Your task to perform on an android device: turn off javascript in the chrome app Image 0: 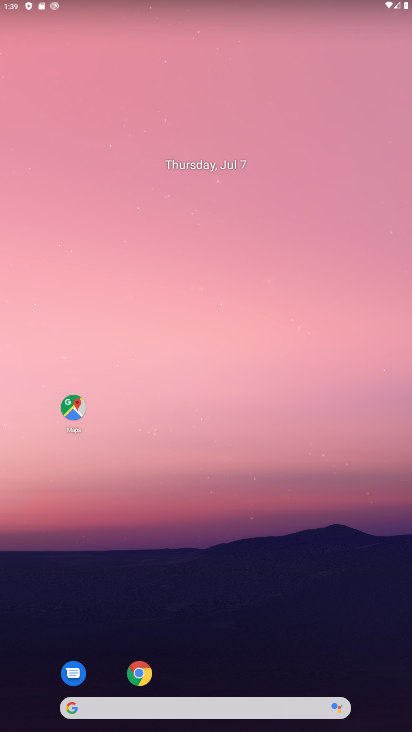
Step 0: drag from (236, 639) to (255, 180)
Your task to perform on an android device: turn off javascript in the chrome app Image 1: 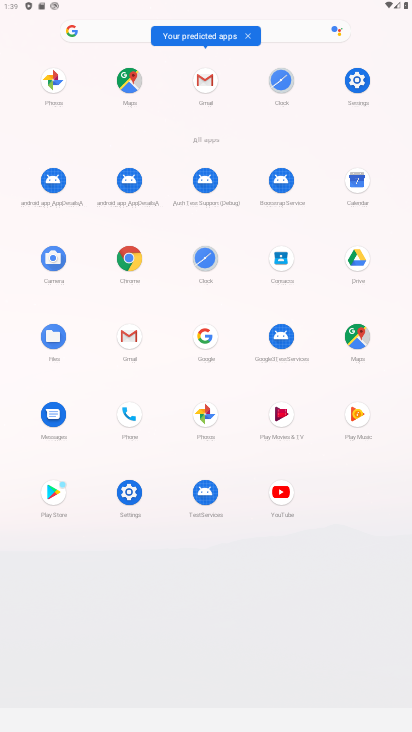
Step 1: click (140, 256)
Your task to perform on an android device: turn off javascript in the chrome app Image 2: 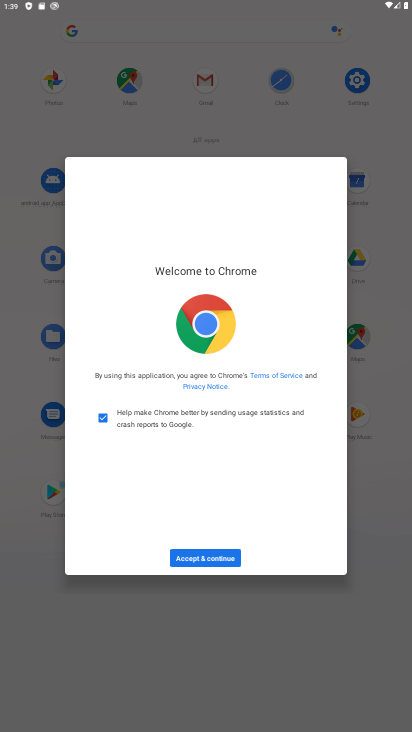
Step 2: click (222, 551)
Your task to perform on an android device: turn off javascript in the chrome app Image 3: 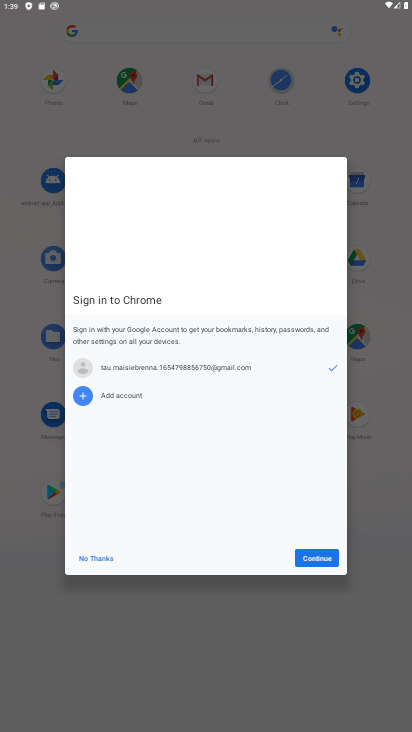
Step 3: click (308, 561)
Your task to perform on an android device: turn off javascript in the chrome app Image 4: 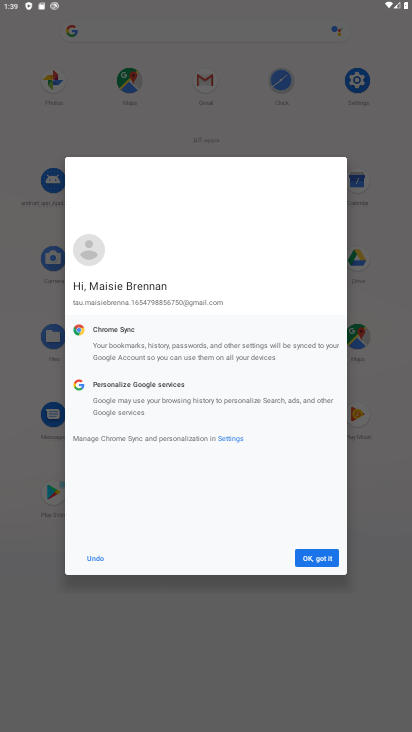
Step 4: click (316, 552)
Your task to perform on an android device: turn off javascript in the chrome app Image 5: 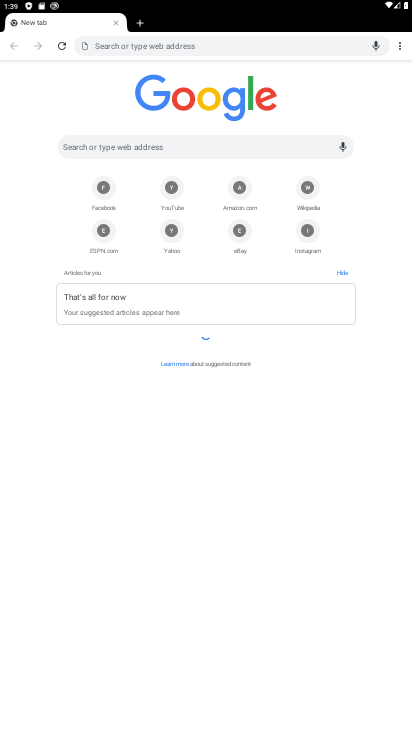
Step 5: click (394, 52)
Your task to perform on an android device: turn off javascript in the chrome app Image 6: 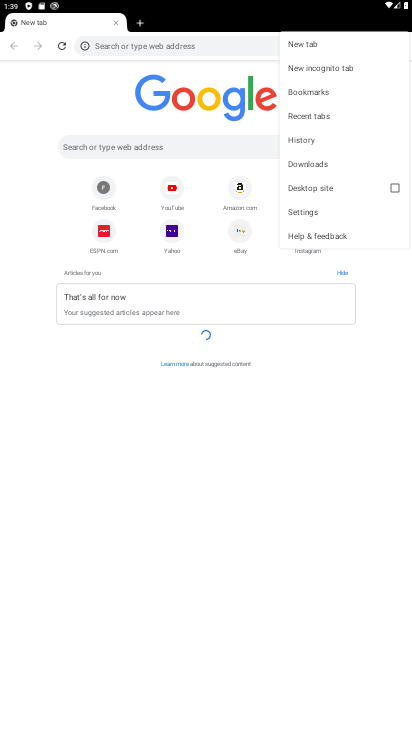
Step 6: click (317, 207)
Your task to perform on an android device: turn off javascript in the chrome app Image 7: 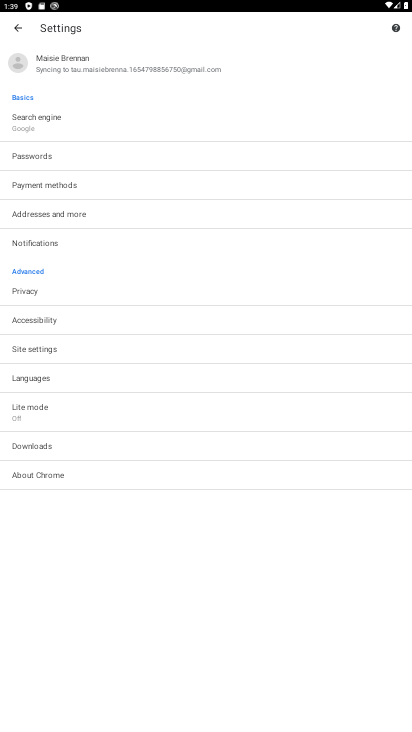
Step 7: click (64, 351)
Your task to perform on an android device: turn off javascript in the chrome app Image 8: 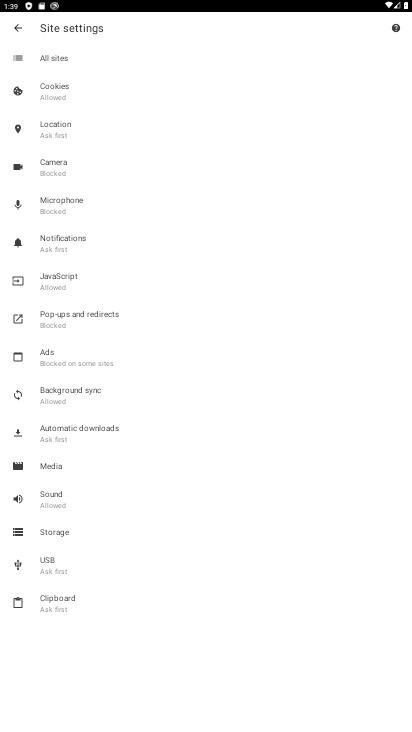
Step 8: click (104, 279)
Your task to perform on an android device: turn off javascript in the chrome app Image 9: 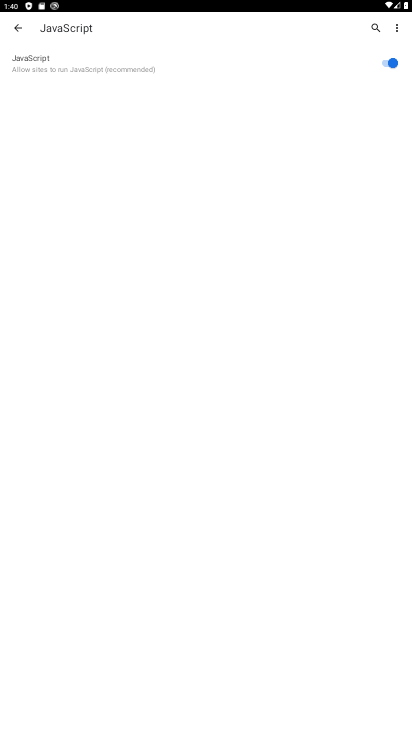
Step 9: click (382, 73)
Your task to perform on an android device: turn off javascript in the chrome app Image 10: 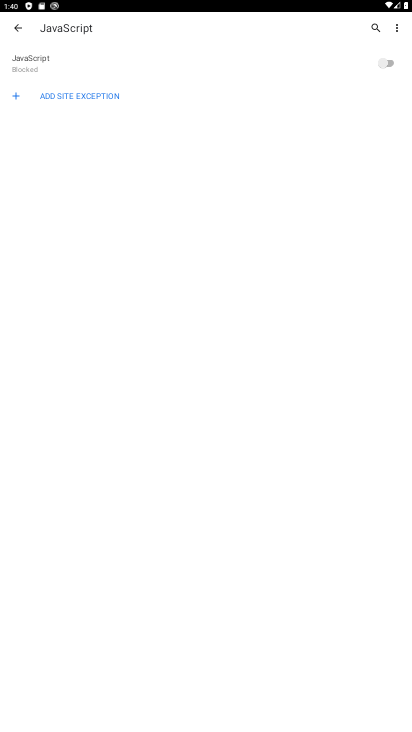
Step 10: task complete